Your task to perform on an android device: toggle pop-ups in chrome Image 0: 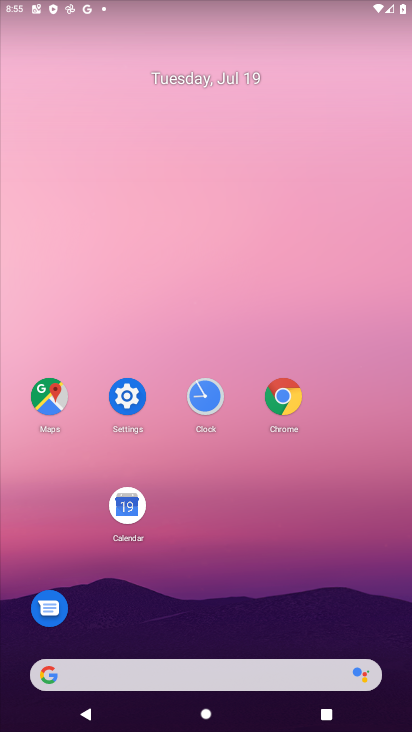
Step 0: click (278, 387)
Your task to perform on an android device: toggle pop-ups in chrome Image 1: 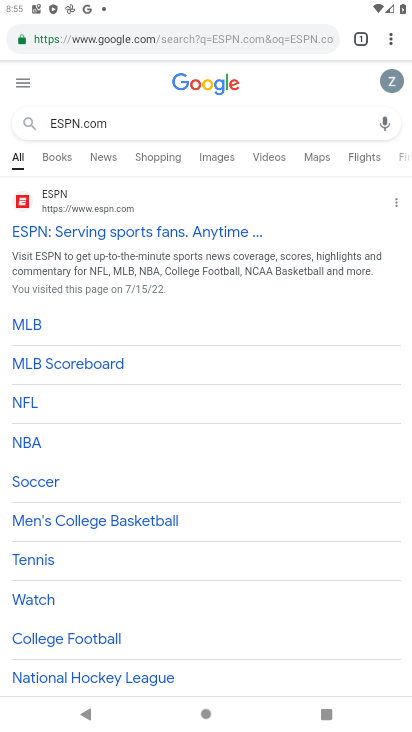
Step 1: click (392, 40)
Your task to perform on an android device: toggle pop-ups in chrome Image 2: 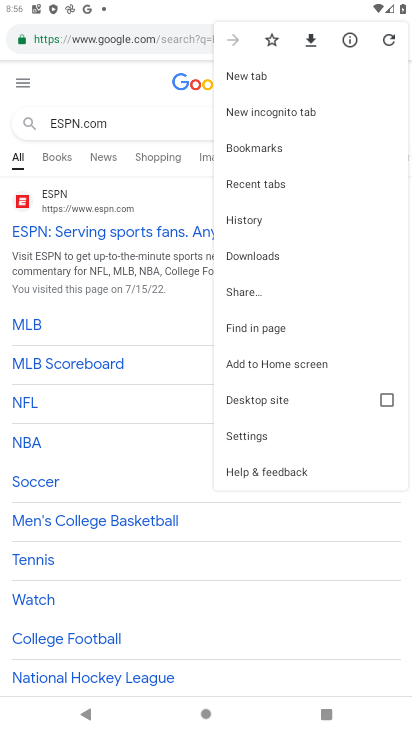
Step 2: click (254, 428)
Your task to perform on an android device: toggle pop-ups in chrome Image 3: 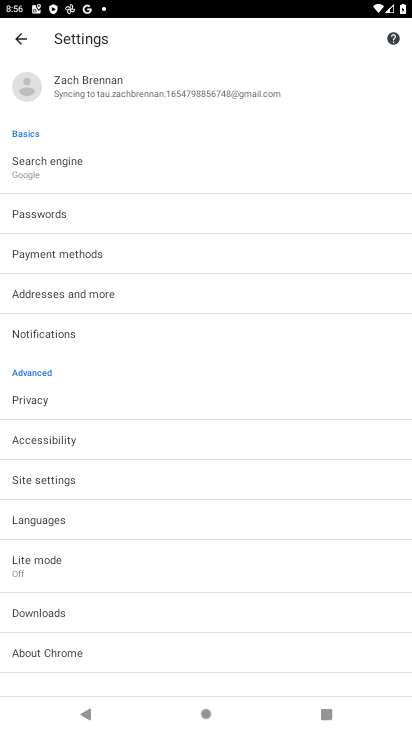
Step 3: click (66, 472)
Your task to perform on an android device: toggle pop-ups in chrome Image 4: 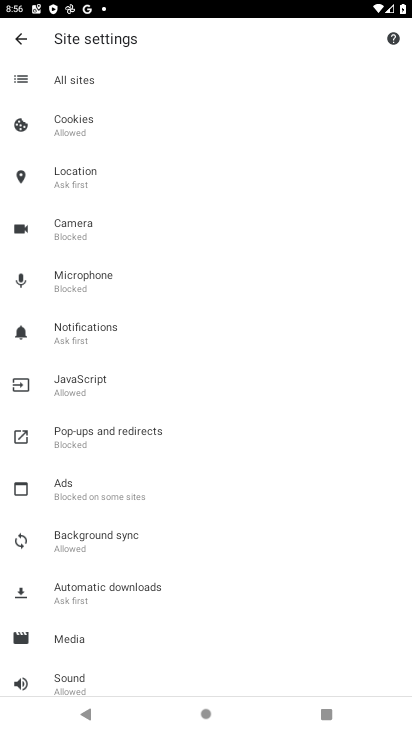
Step 4: click (90, 441)
Your task to perform on an android device: toggle pop-ups in chrome Image 5: 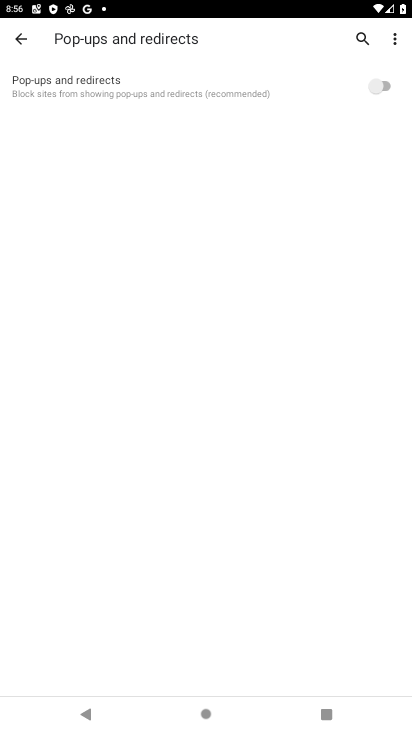
Step 5: click (383, 82)
Your task to perform on an android device: toggle pop-ups in chrome Image 6: 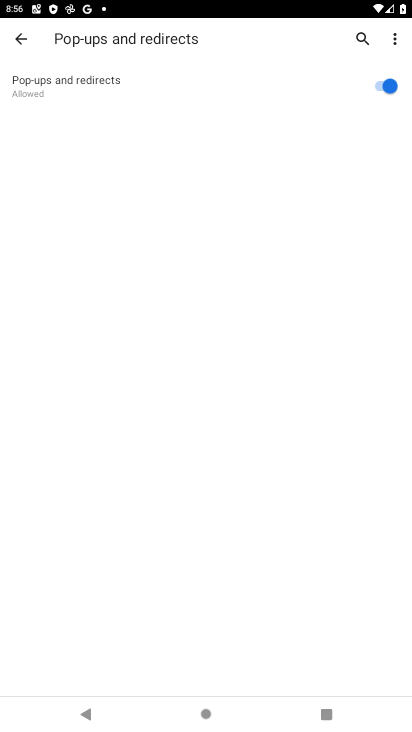
Step 6: task complete